Your task to perform on an android device: Empty the shopping cart on costco.com. Search for razer thresher on costco.com, select the first entry, add it to the cart, then select checkout. Image 0: 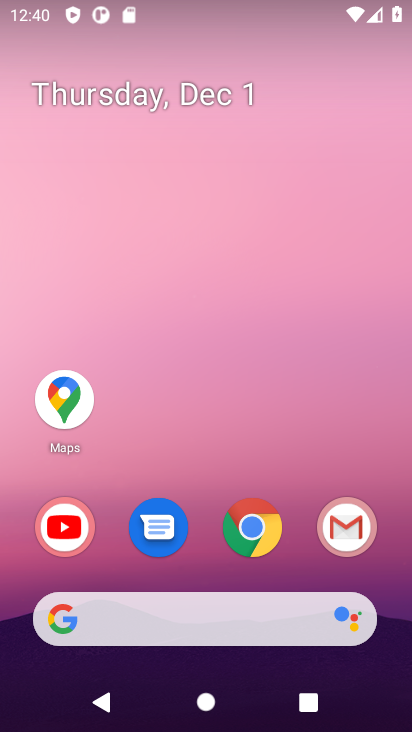
Step 0: click (252, 525)
Your task to perform on an android device: Empty the shopping cart on costco.com. Search for razer thresher on costco.com, select the first entry, add it to the cart, then select checkout. Image 1: 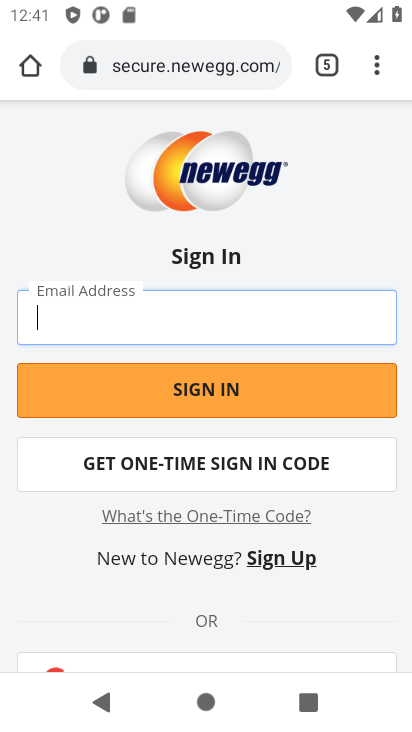
Step 1: click (182, 72)
Your task to perform on an android device: Empty the shopping cart on costco.com. Search for razer thresher on costco.com, select the first entry, add it to the cart, then select checkout. Image 2: 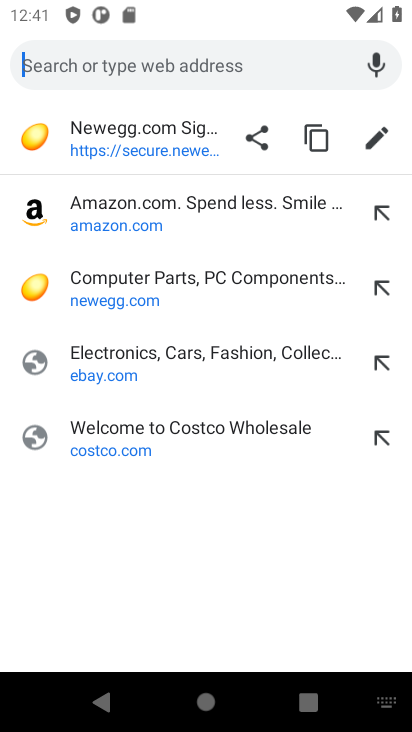
Step 2: click (124, 439)
Your task to perform on an android device: Empty the shopping cart on costco.com. Search for razer thresher on costco.com, select the first entry, add it to the cart, then select checkout. Image 3: 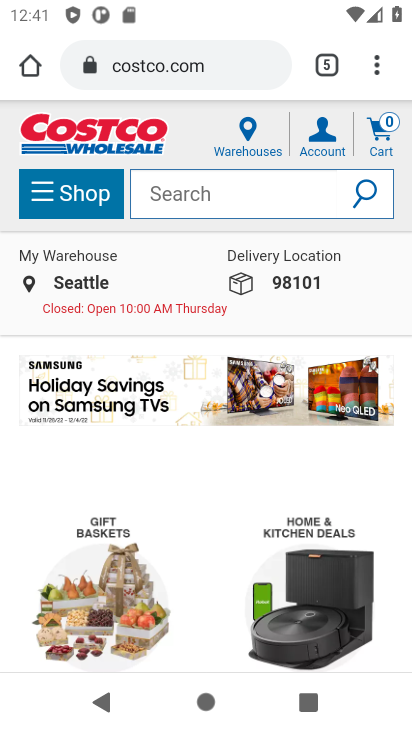
Step 3: click (375, 148)
Your task to perform on an android device: Empty the shopping cart on costco.com. Search for razer thresher on costco.com, select the first entry, add it to the cart, then select checkout. Image 4: 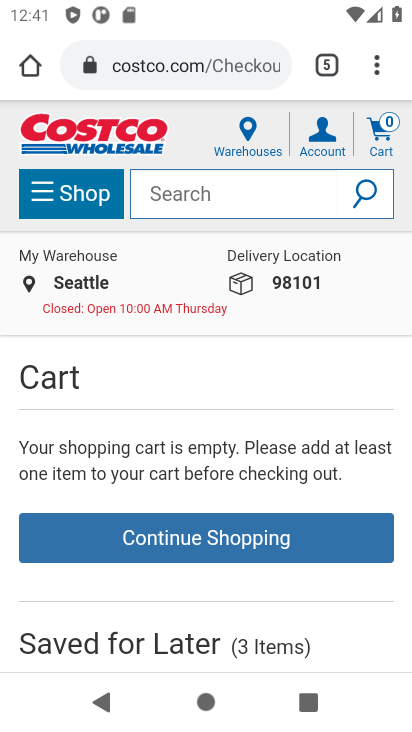
Step 4: click (221, 200)
Your task to perform on an android device: Empty the shopping cart on costco.com. Search for razer thresher on costco.com, select the first entry, add it to the cart, then select checkout. Image 5: 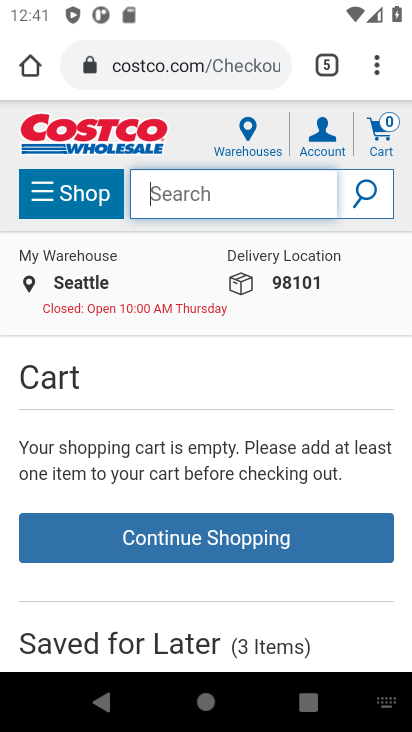
Step 5: click (184, 191)
Your task to perform on an android device: Empty the shopping cart on costco.com. Search for razer thresher on costco.com, select the first entry, add it to the cart, then select checkout. Image 6: 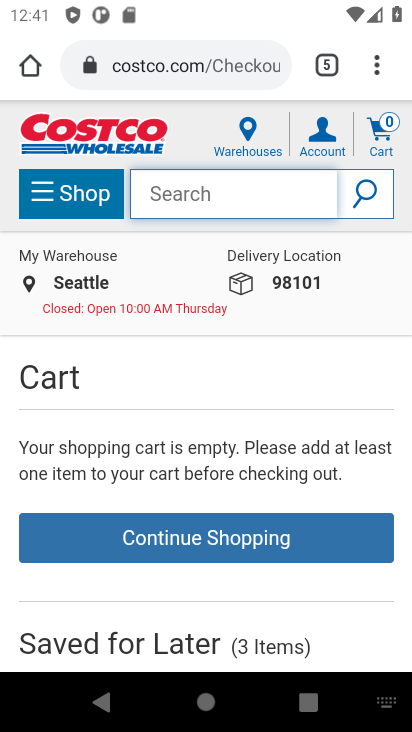
Step 6: type "razer thresher"
Your task to perform on an android device: Empty the shopping cart on costco.com. Search for razer thresher on costco.com, select the first entry, add it to the cart, then select checkout. Image 7: 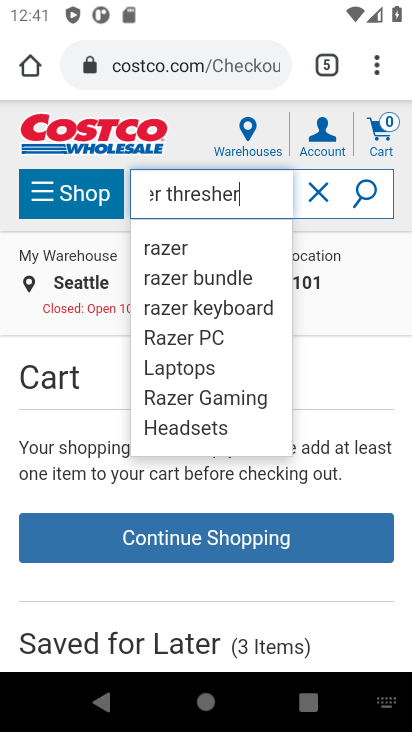
Step 7: click (365, 199)
Your task to perform on an android device: Empty the shopping cart on costco.com. Search for razer thresher on costco.com, select the first entry, add it to the cart, then select checkout. Image 8: 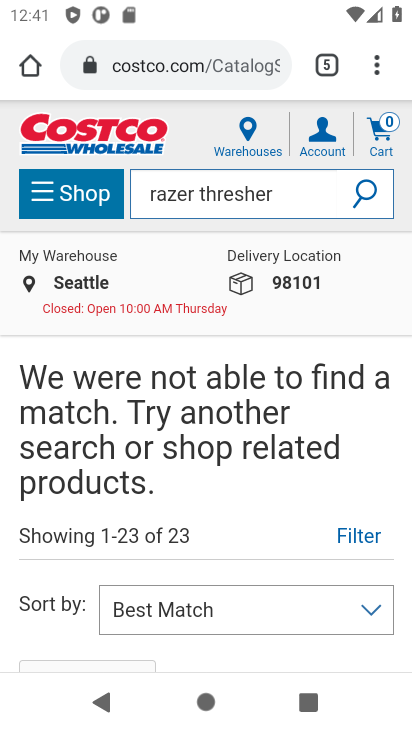
Step 8: task complete